Your task to perform on an android device: Is it going to rain tomorrow? Image 0: 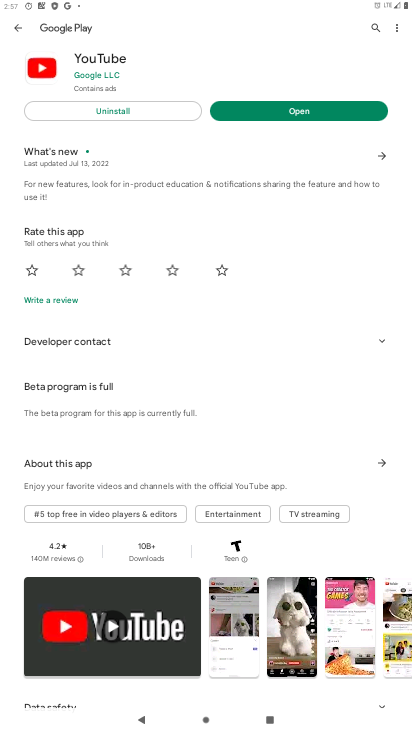
Step 0: press home button
Your task to perform on an android device: Is it going to rain tomorrow? Image 1: 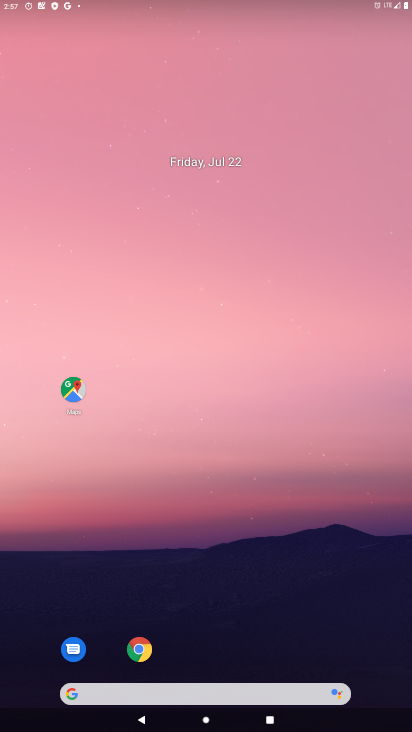
Step 1: drag from (292, 523) to (257, 40)
Your task to perform on an android device: Is it going to rain tomorrow? Image 2: 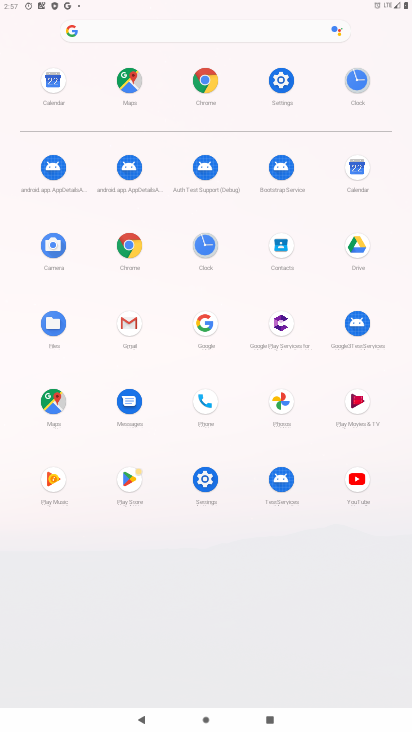
Step 2: click (204, 84)
Your task to perform on an android device: Is it going to rain tomorrow? Image 3: 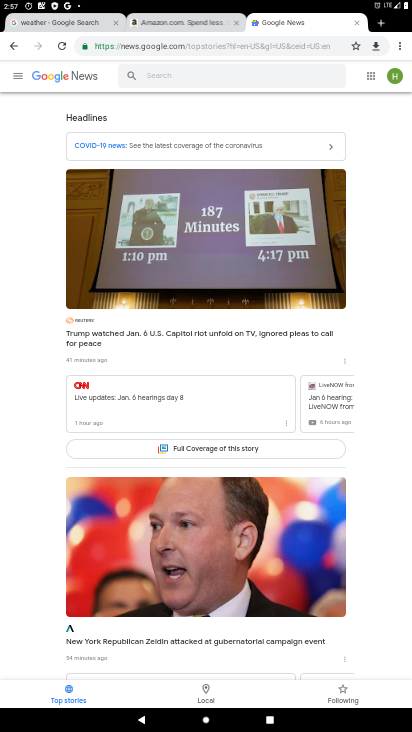
Step 3: click (190, 49)
Your task to perform on an android device: Is it going to rain tomorrow? Image 4: 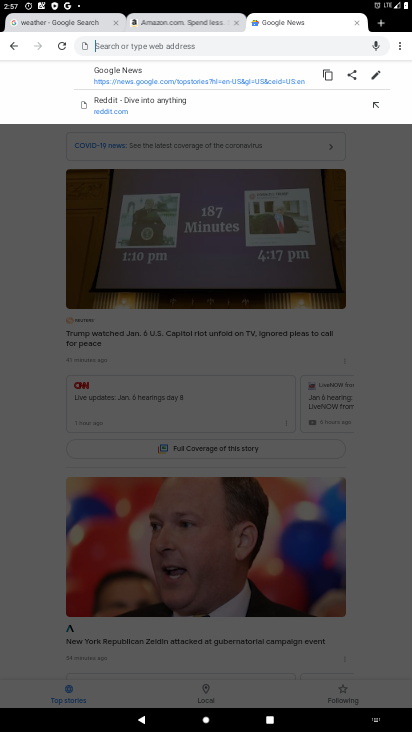
Step 4: type "weather"
Your task to perform on an android device: Is it going to rain tomorrow? Image 5: 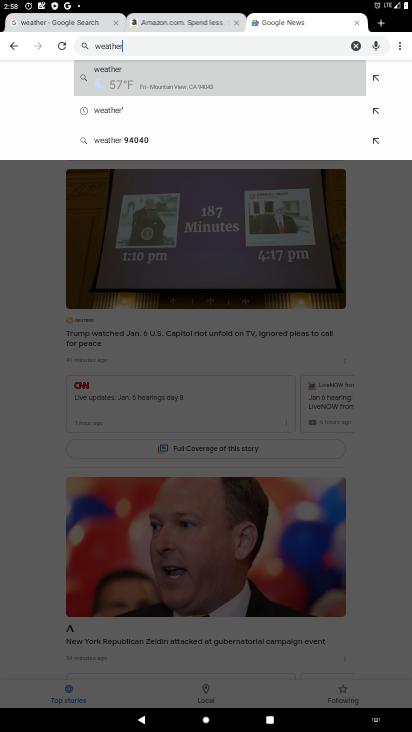
Step 5: click (136, 78)
Your task to perform on an android device: Is it going to rain tomorrow? Image 6: 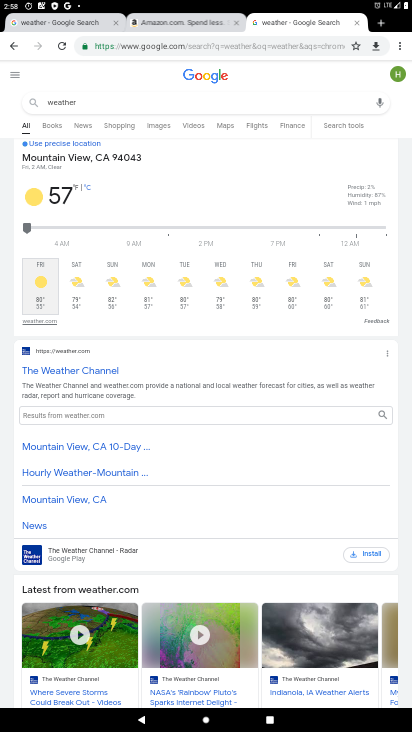
Step 6: click (71, 281)
Your task to perform on an android device: Is it going to rain tomorrow? Image 7: 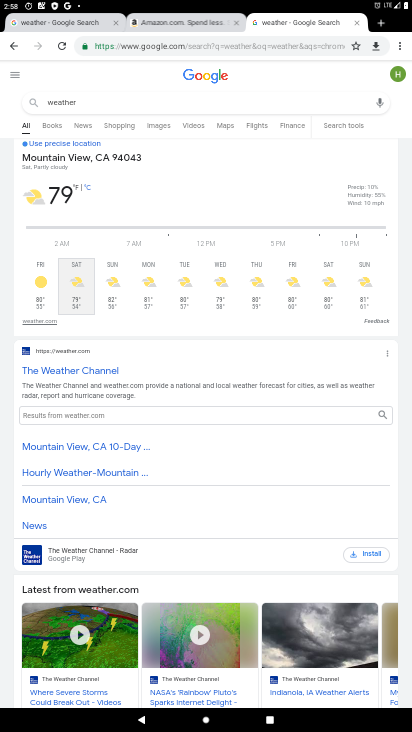
Step 7: task complete